Your task to perform on an android device: change timer sound Image 0: 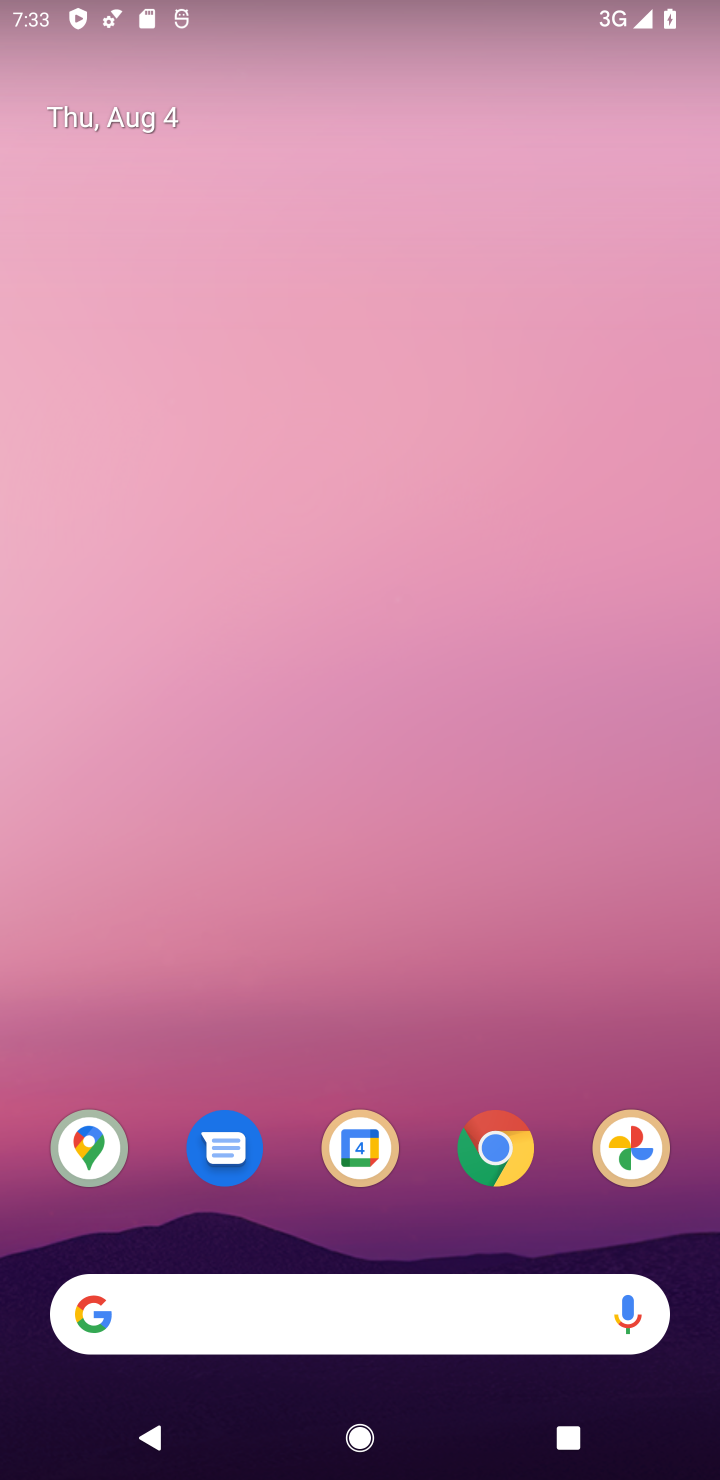
Step 0: drag from (560, 1079) to (455, 44)
Your task to perform on an android device: change timer sound Image 1: 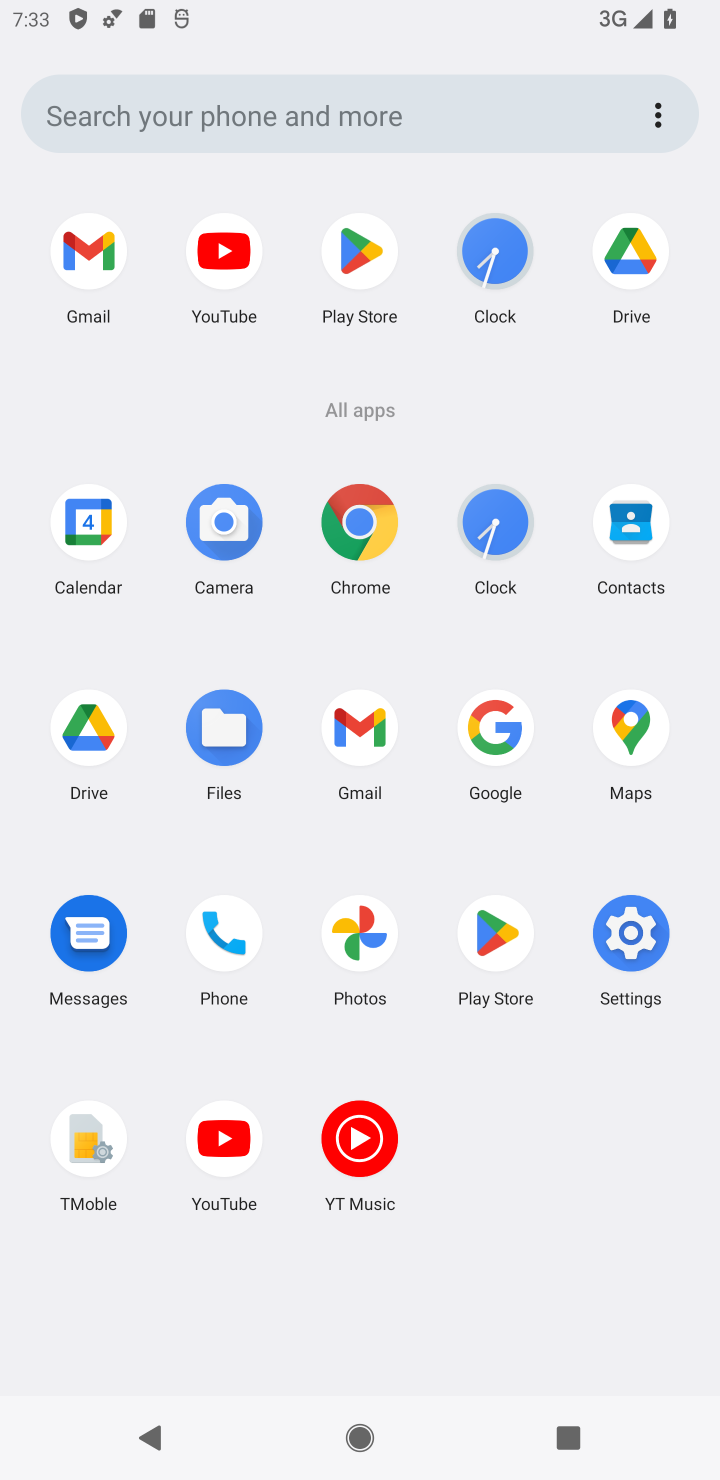
Step 1: click (485, 259)
Your task to perform on an android device: change timer sound Image 2: 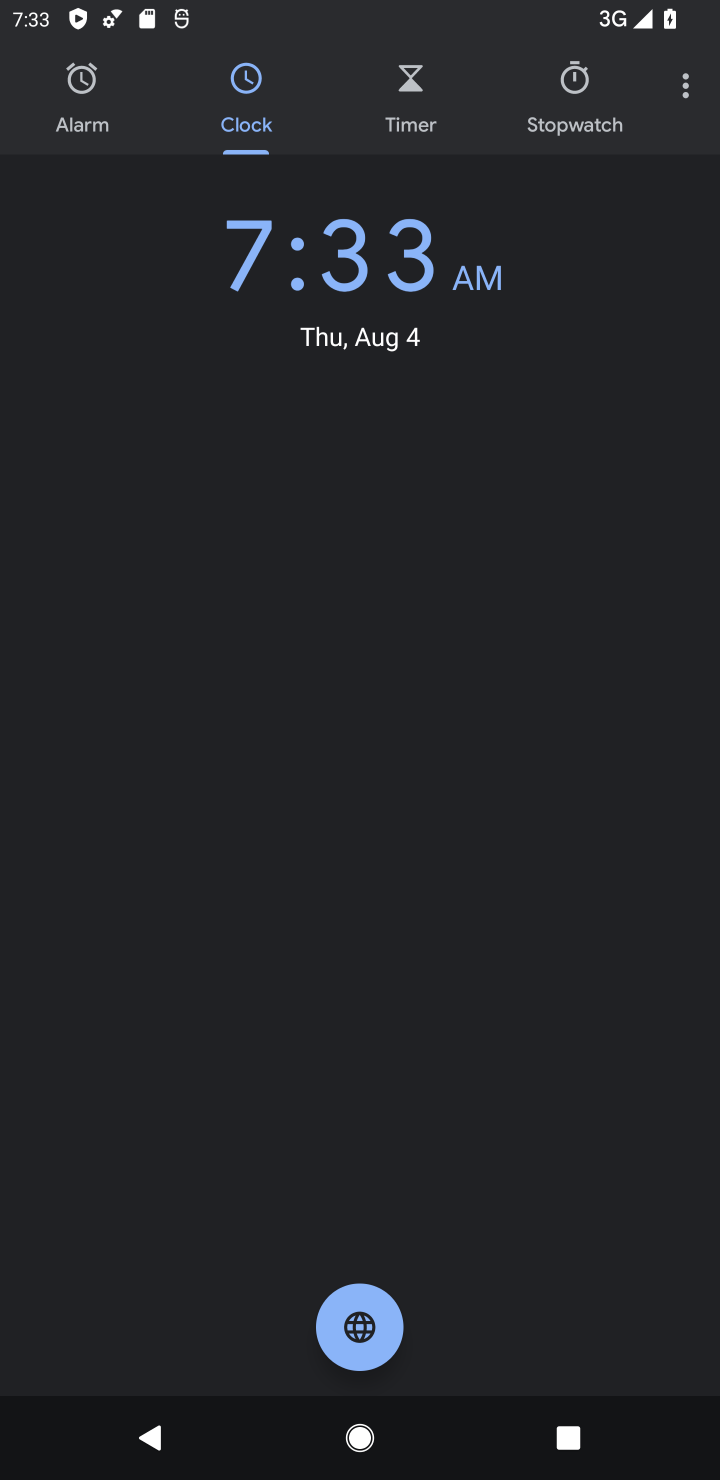
Step 2: click (416, 87)
Your task to perform on an android device: change timer sound Image 3: 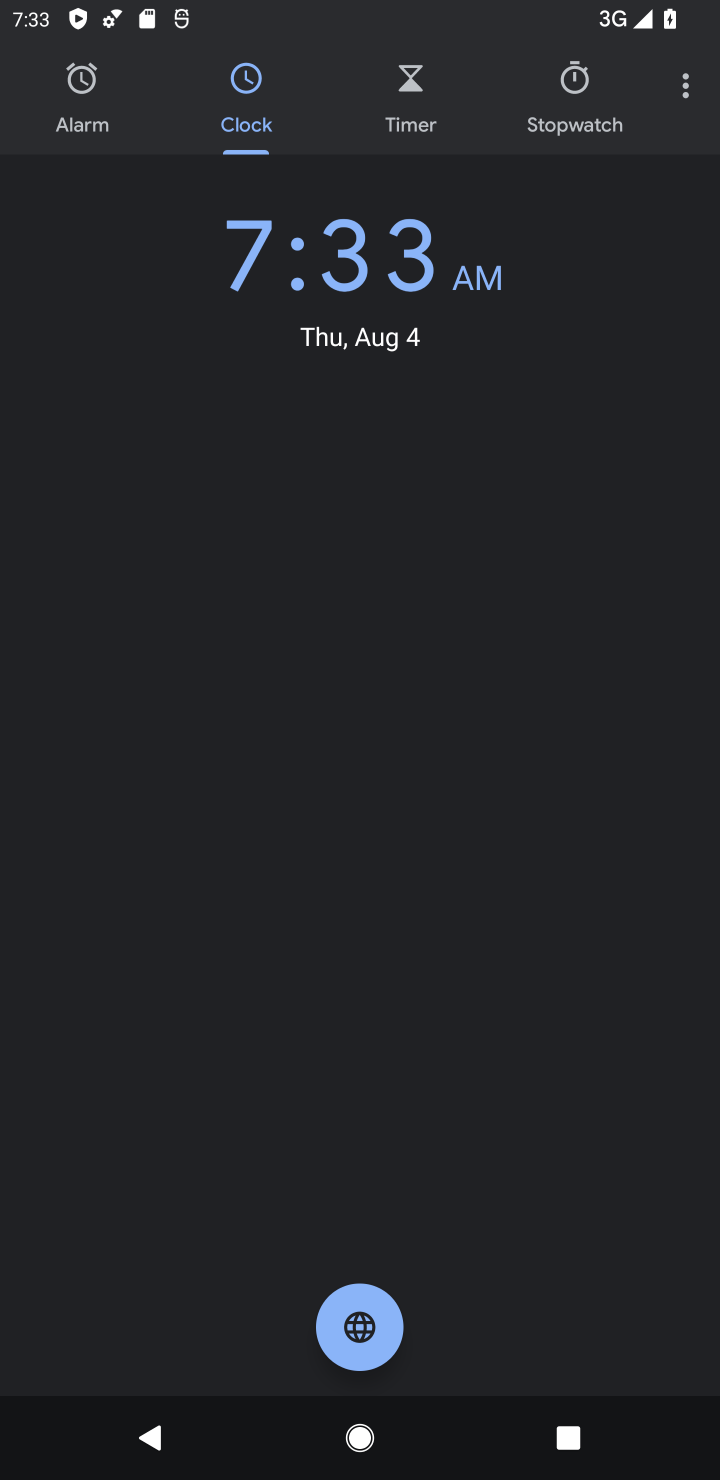
Step 3: click (690, 91)
Your task to perform on an android device: change timer sound Image 4: 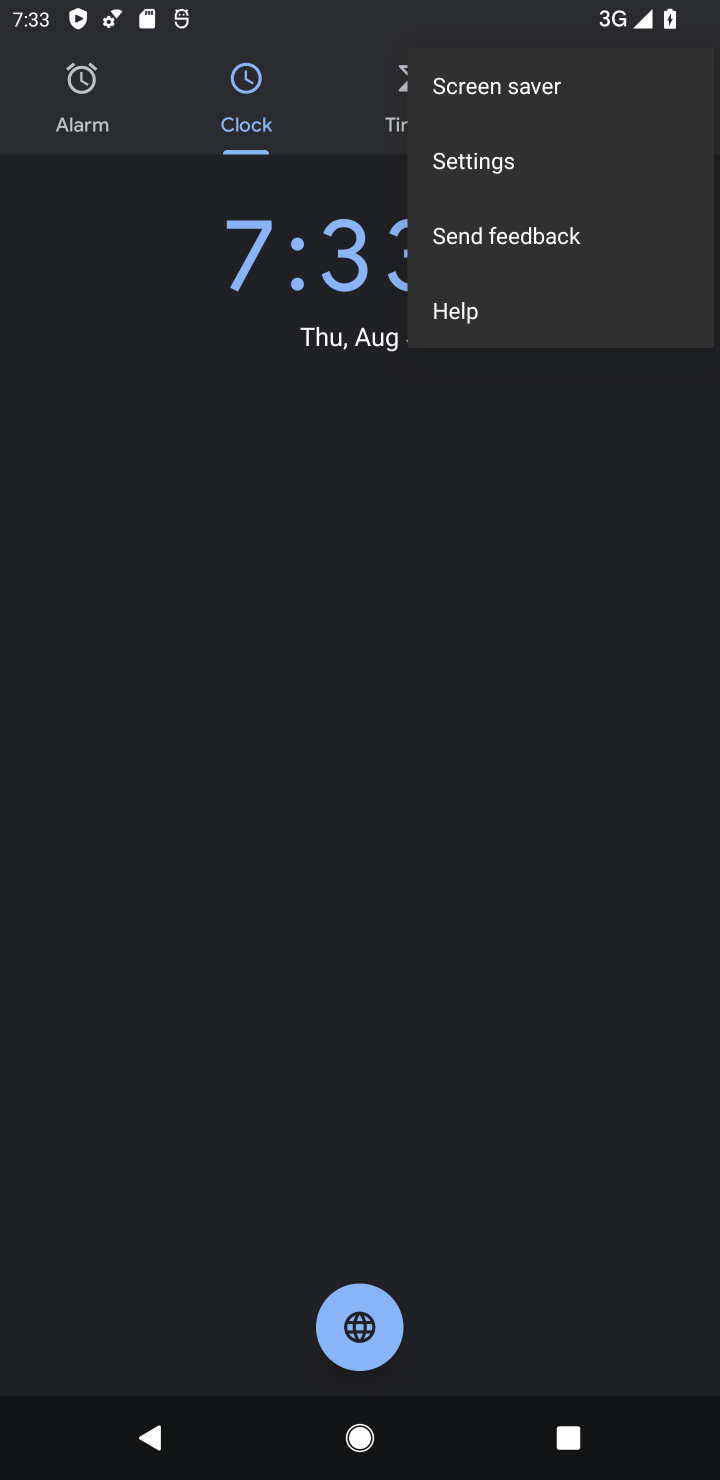
Step 4: click (557, 154)
Your task to perform on an android device: change timer sound Image 5: 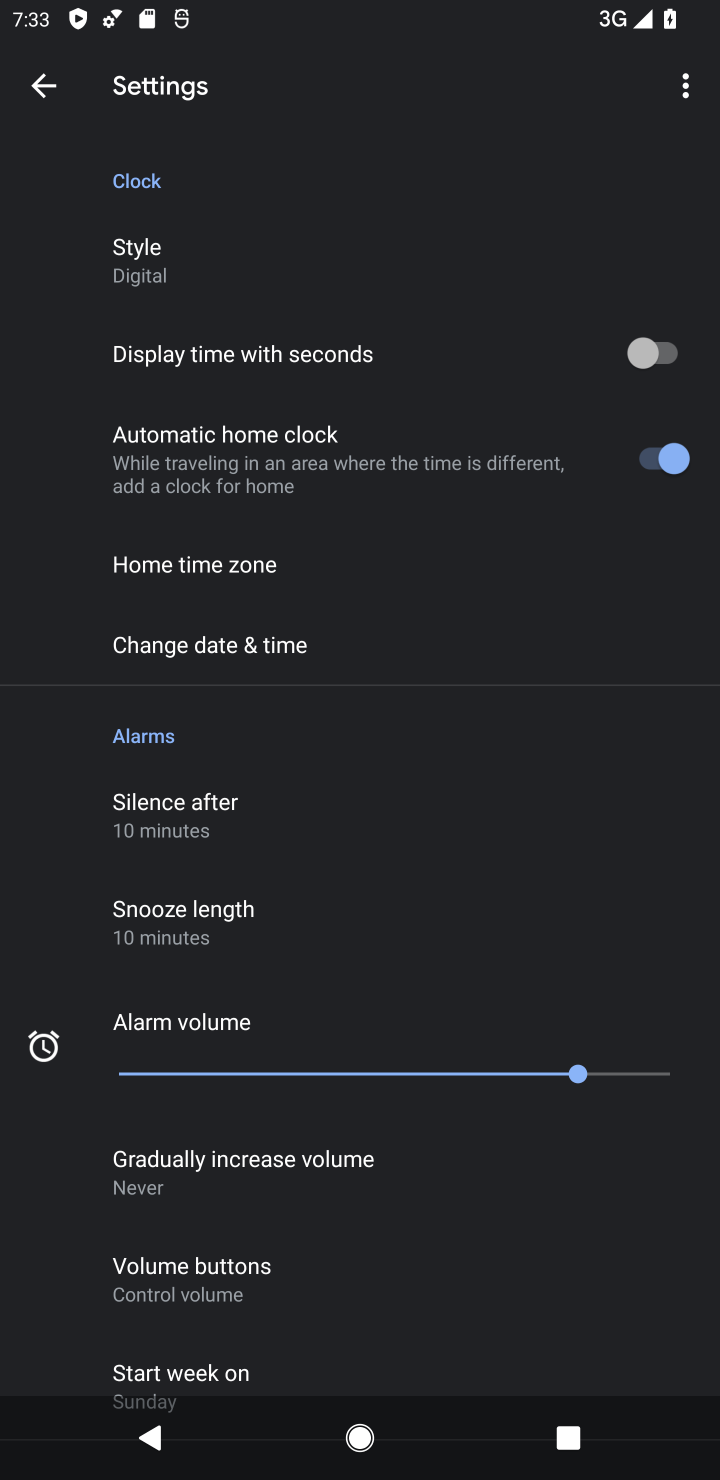
Step 5: drag from (353, 1291) to (309, 702)
Your task to perform on an android device: change timer sound Image 6: 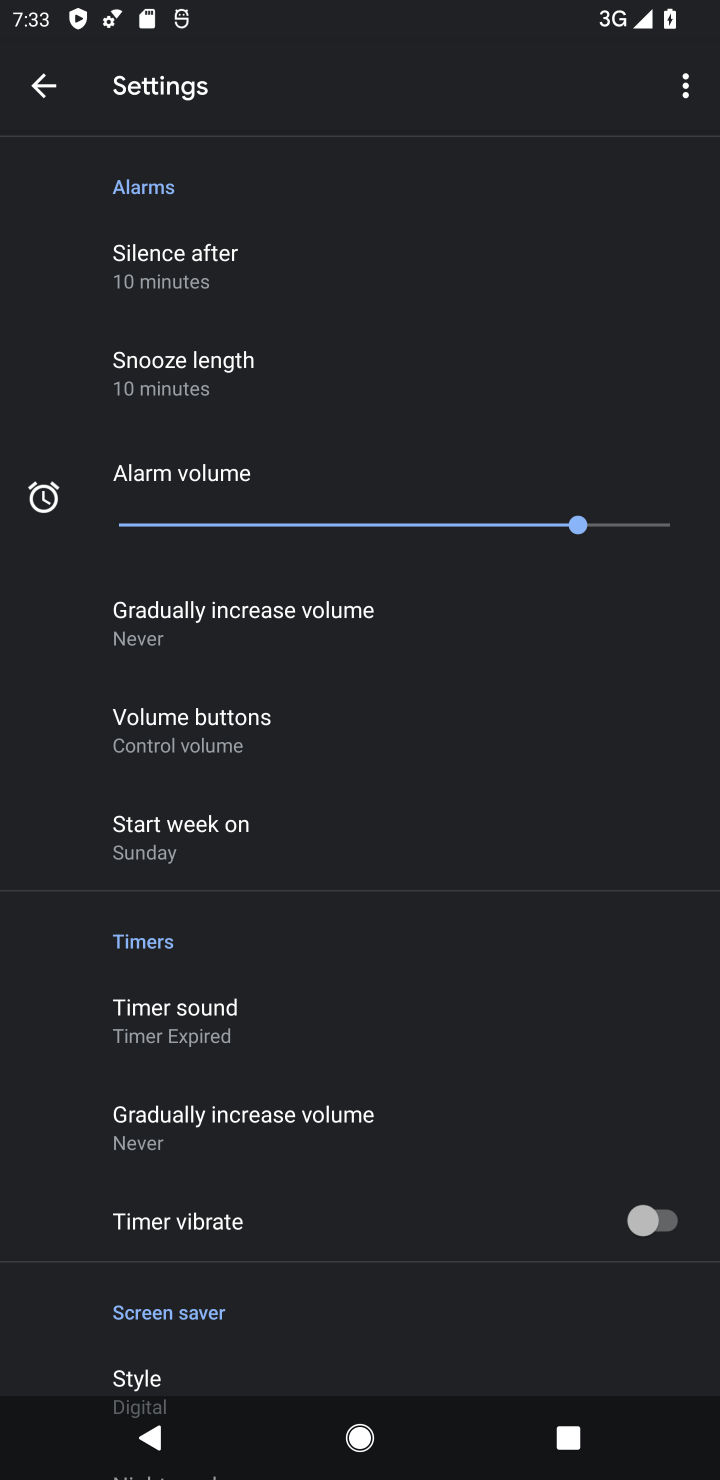
Step 6: click (271, 1035)
Your task to perform on an android device: change timer sound Image 7: 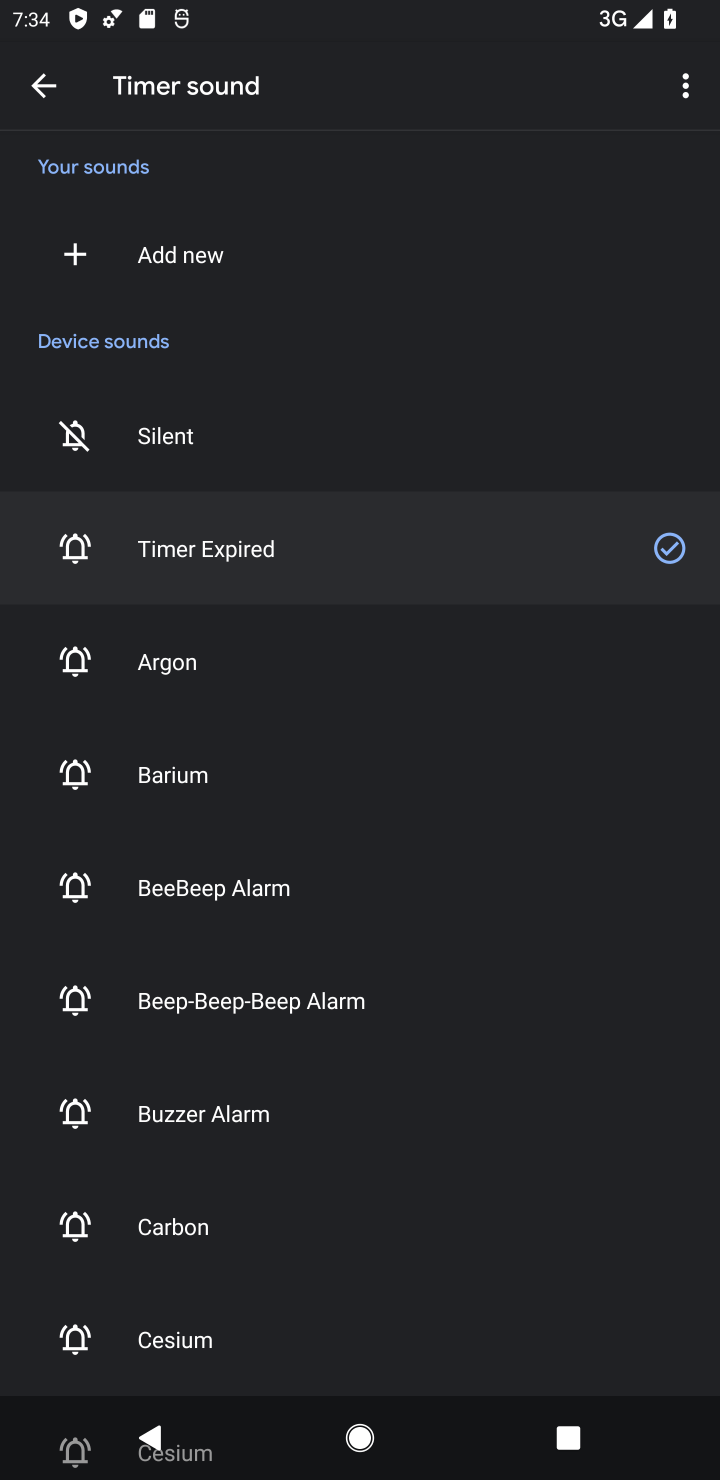
Step 7: click (403, 773)
Your task to perform on an android device: change timer sound Image 8: 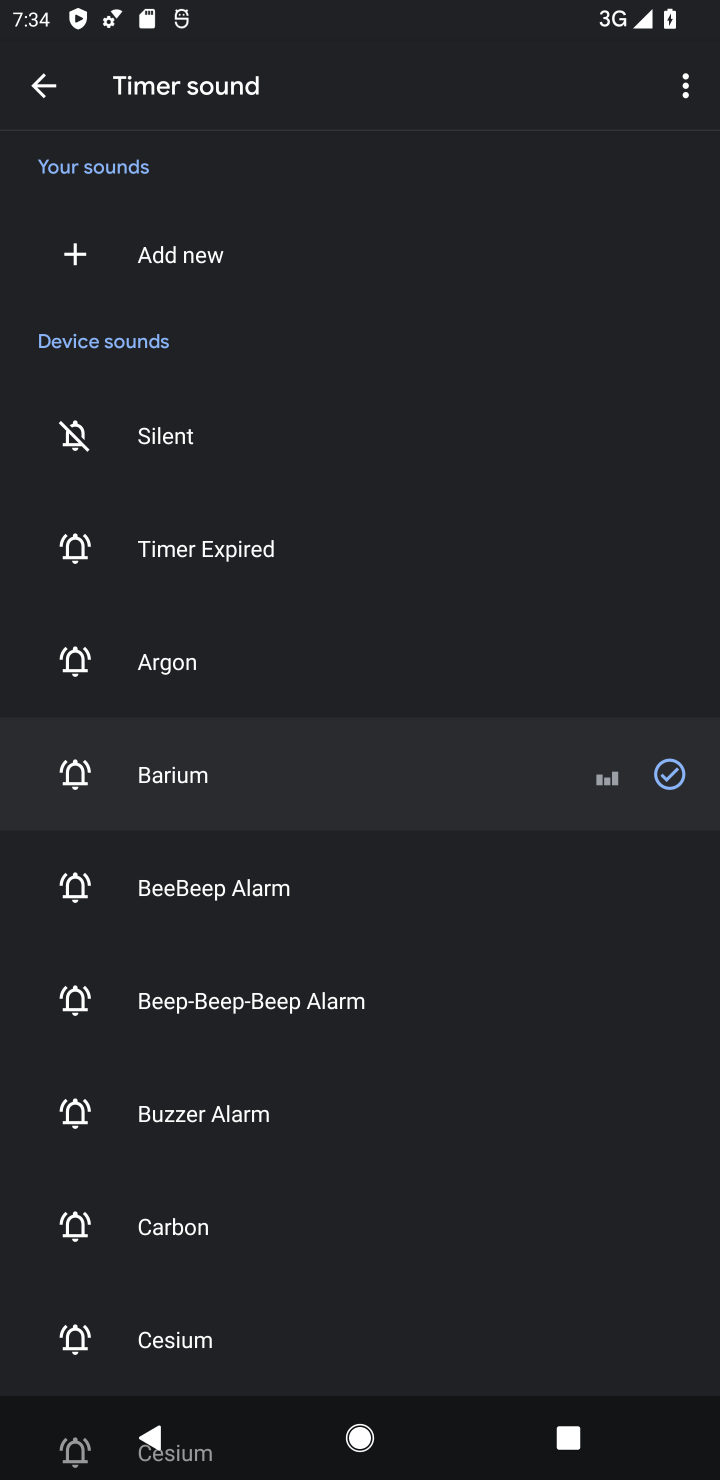
Step 8: task complete